Your task to perform on an android device: Open Google Image 0: 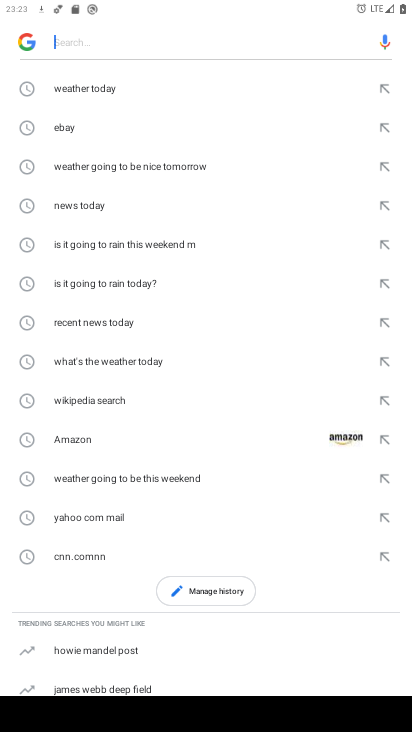
Step 0: task complete